Your task to perform on an android device: Clear the shopping cart on bestbuy.com. Image 0: 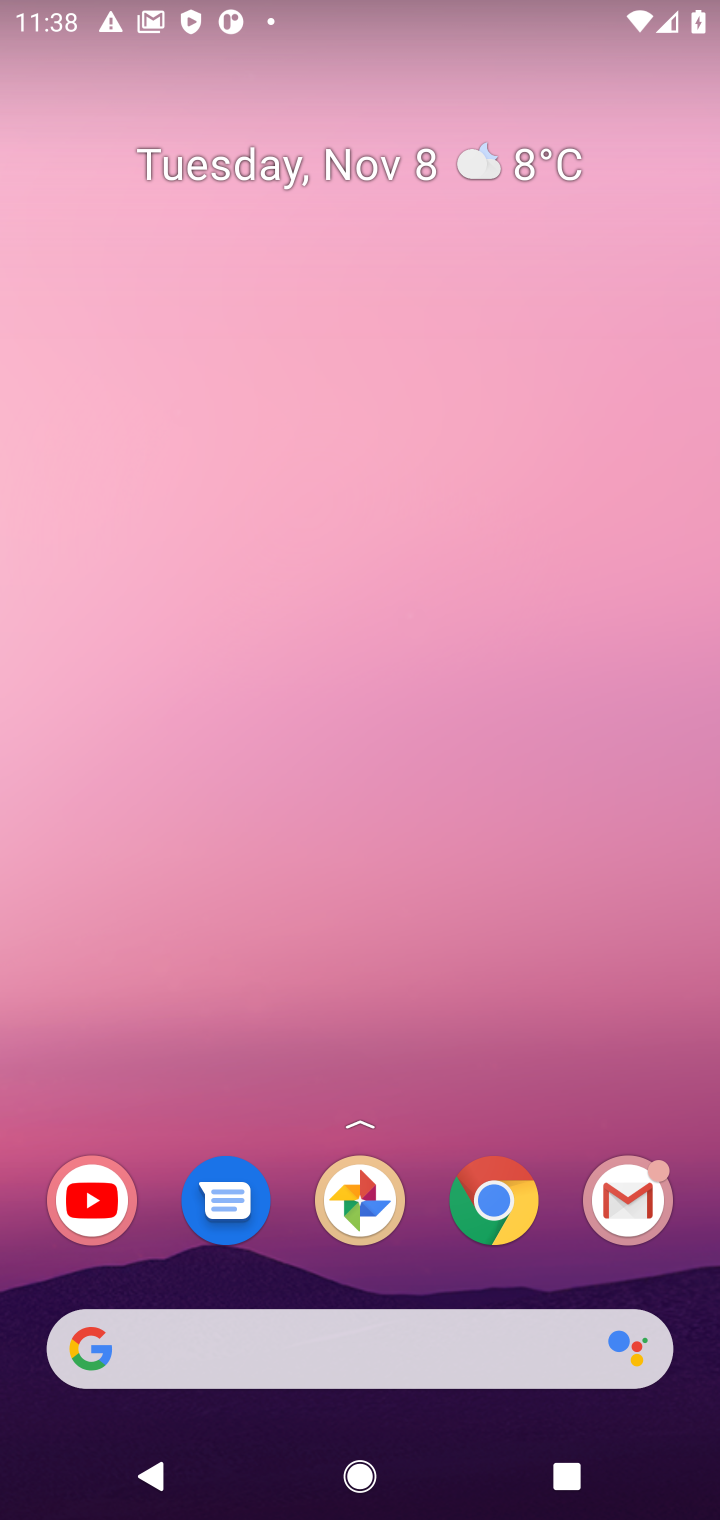
Step 0: click (339, 1315)
Your task to perform on an android device: Clear the shopping cart on bestbuy.com. Image 1: 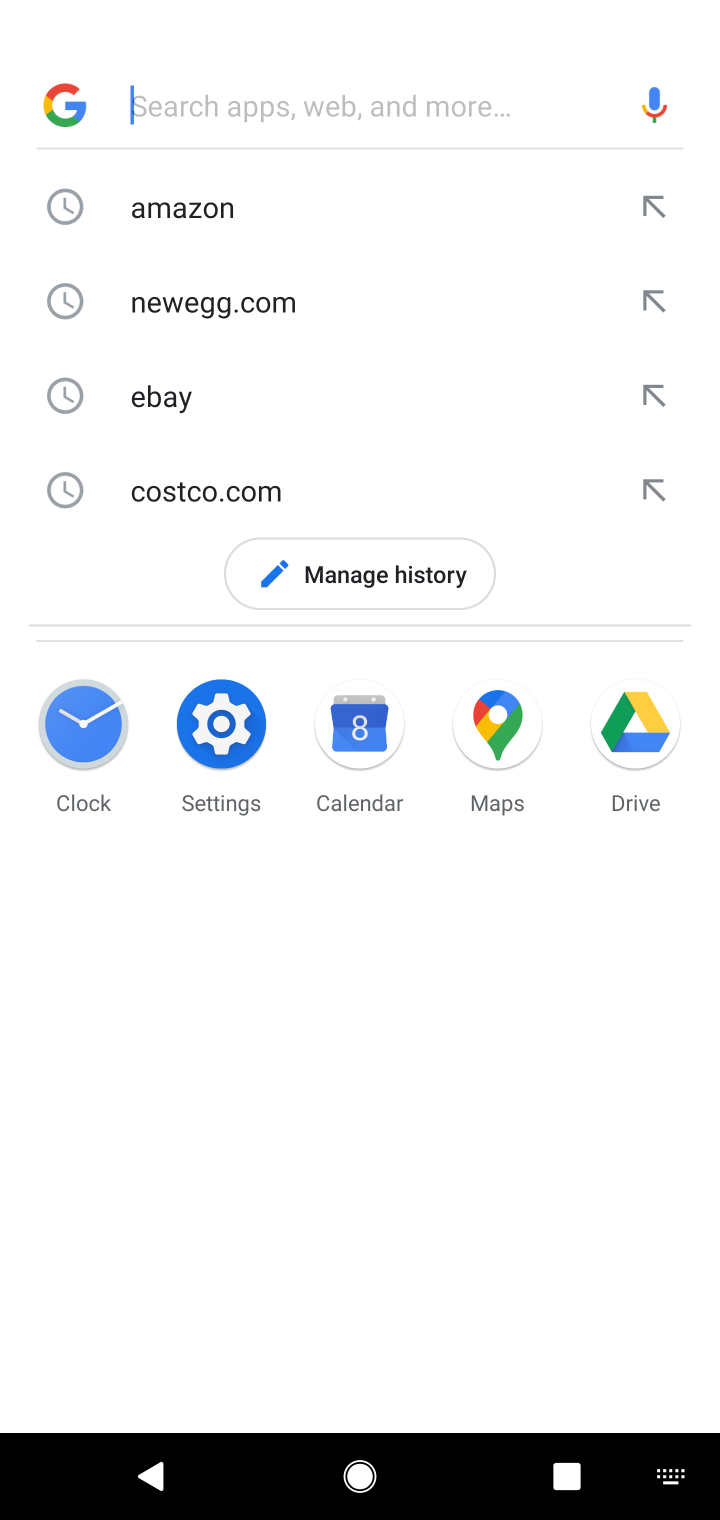
Step 1: type "bestbuy"
Your task to perform on an android device: Clear the shopping cart on bestbuy.com. Image 2: 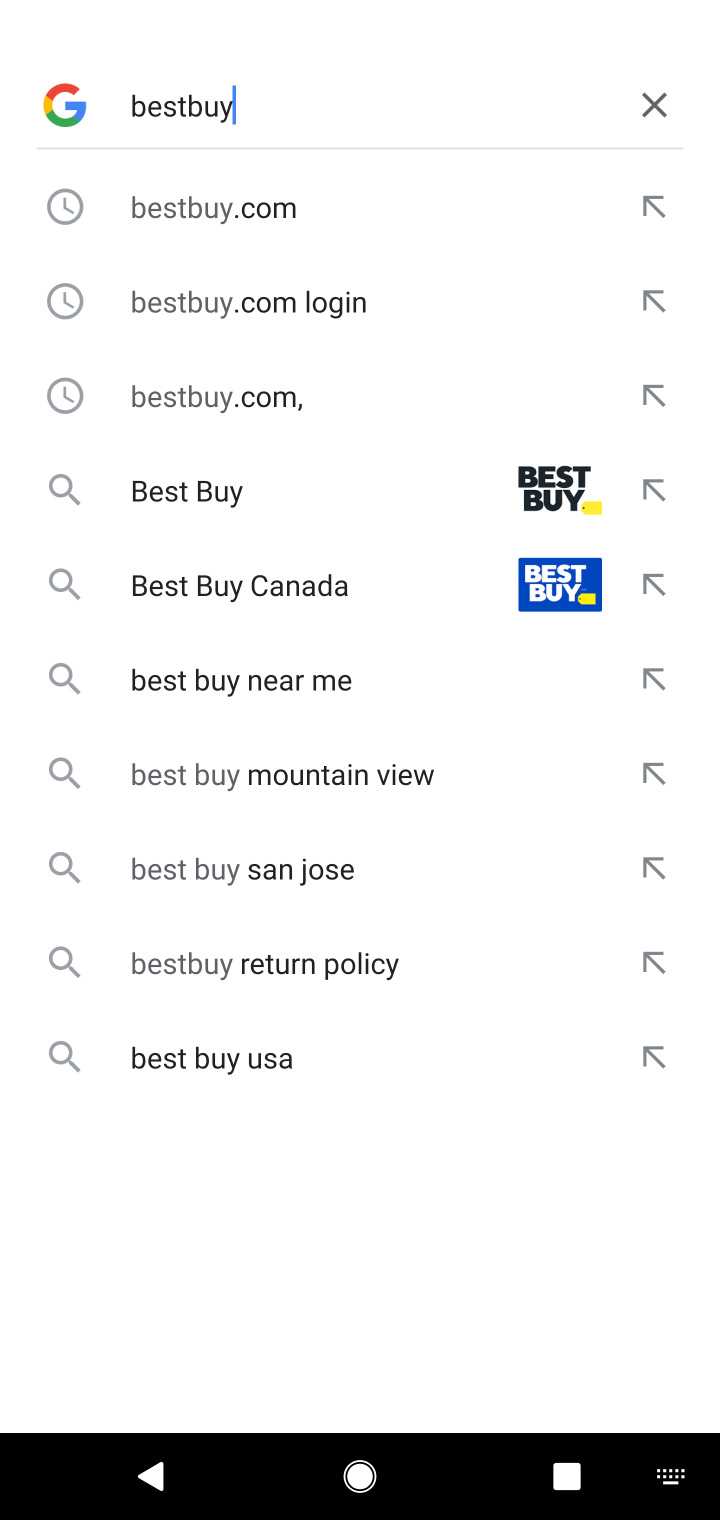
Step 2: click (292, 502)
Your task to perform on an android device: Clear the shopping cart on bestbuy.com. Image 3: 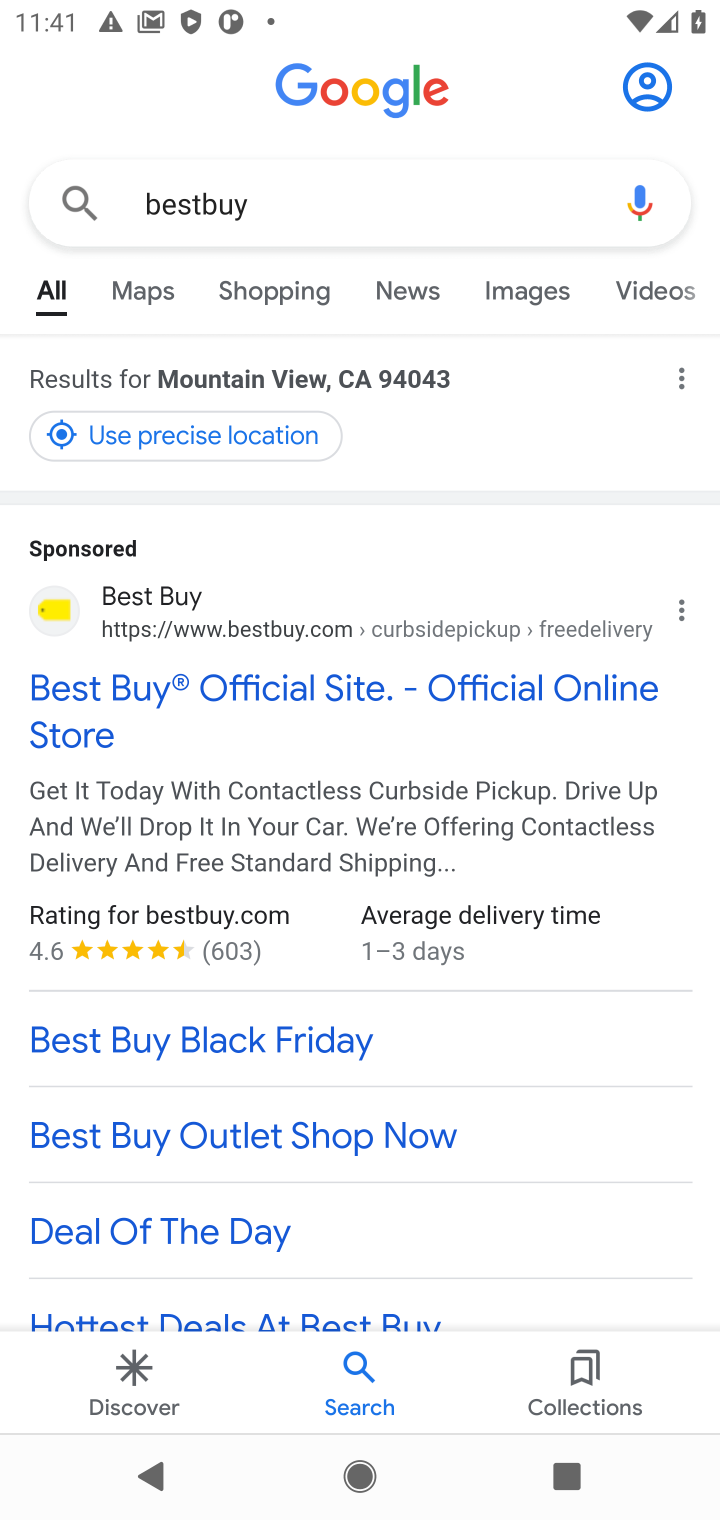
Step 3: click (403, 669)
Your task to perform on an android device: Clear the shopping cart on bestbuy.com. Image 4: 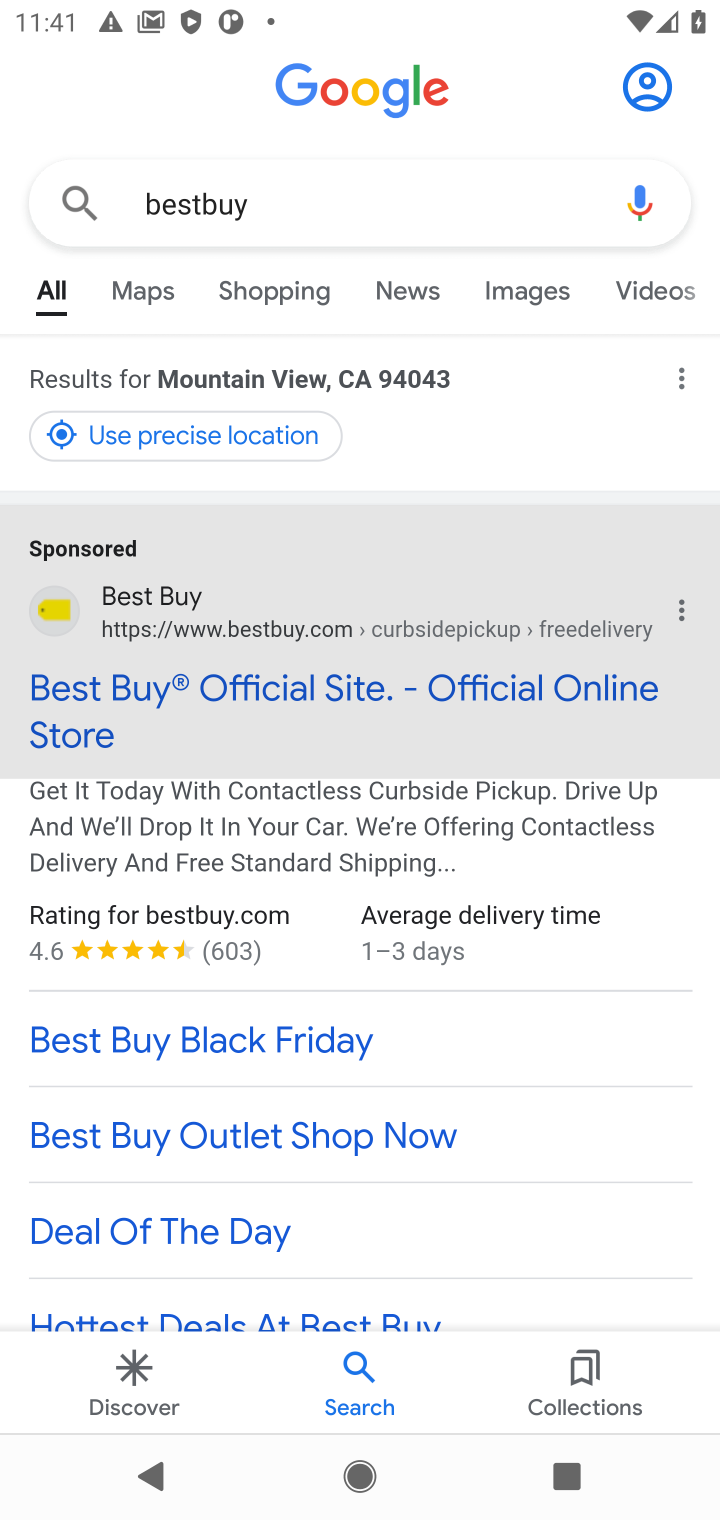
Step 4: task complete